Your task to perform on an android device: change your default location settings in chrome Image 0: 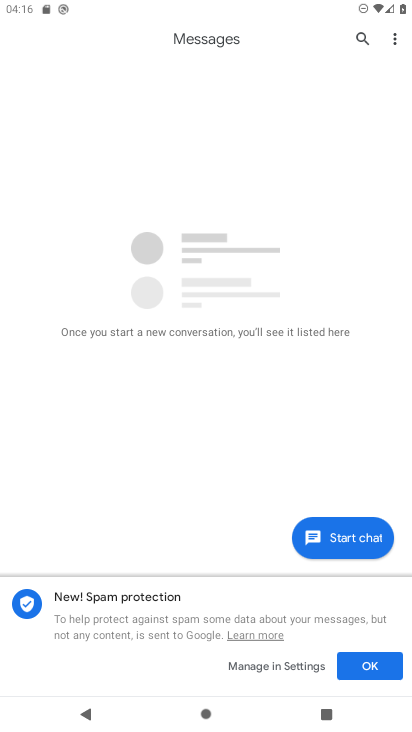
Step 0: press home button
Your task to perform on an android device: change your default location settings in chrome Image 1: 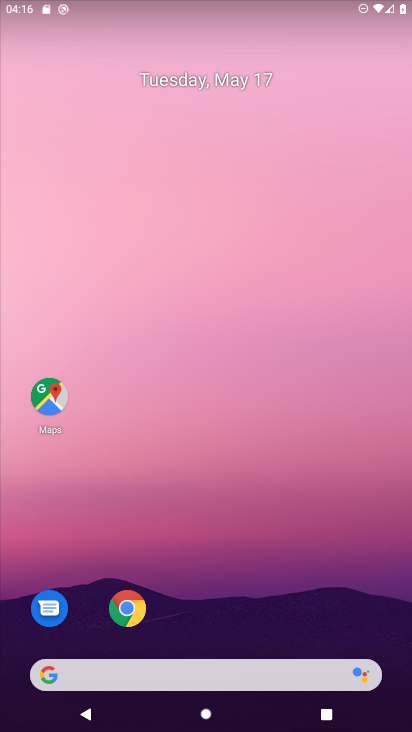
Step 1: click (132, 610)
Your task to perform on an android device: change your default location settings in chrome Image 2: 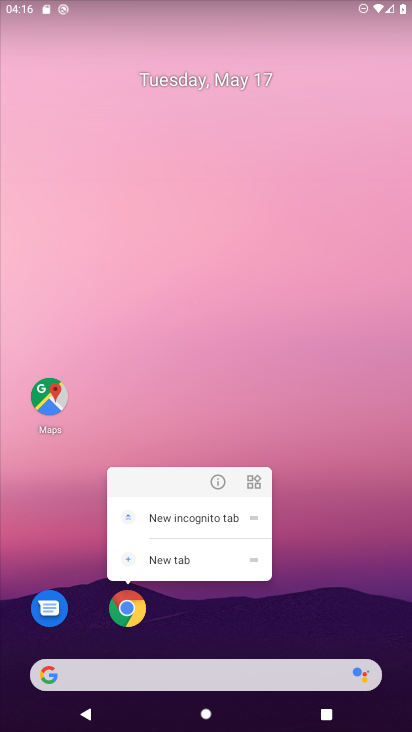
Step 2: click (132, 610)
Your task to perform on an android device: change your default location settings in chrome Image 3: 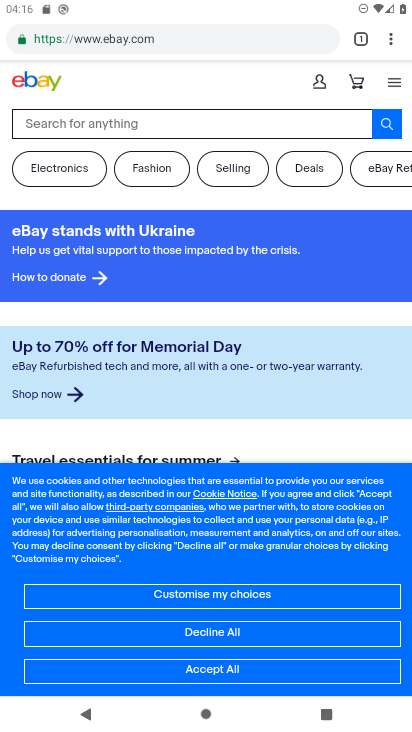
Step 3: click (387, 40)
Your task to perform on an android device: change your default location settings in chrome Image 4: 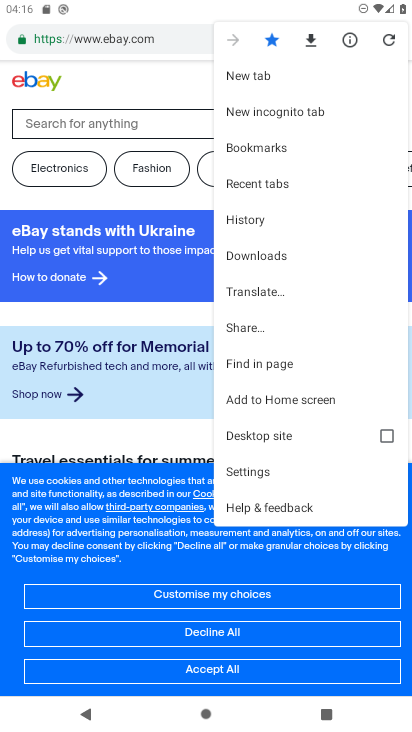
Step 4: click (238, 477)
Your task to perform on an android device: change your default location settings in chrome Image 5: 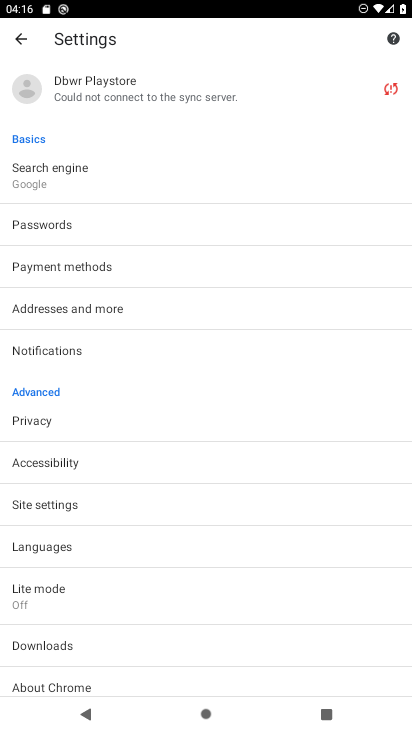
Step 5: click (24, 498)
Your task to perform on an android device: change your default location settings in chrome Image 6: 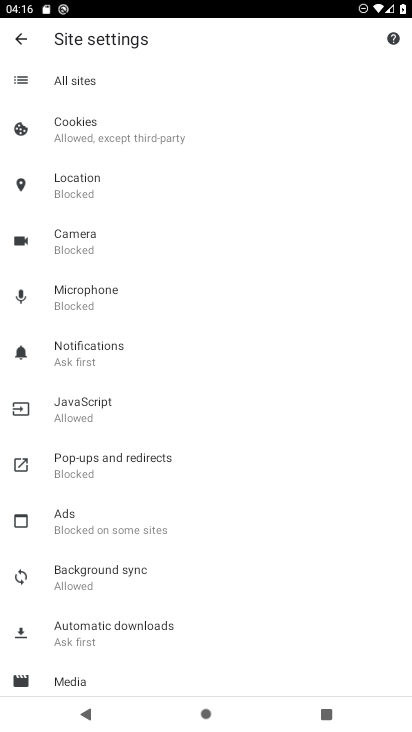
Step 6: click (66, 193)
Your task to perform on an android device: change your default location settings in chrome Image 7: 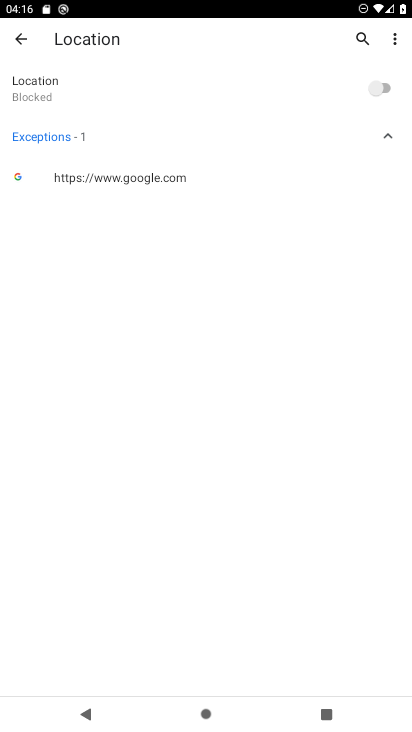
Step 7: click (391, 81)
Your task to perform on an android device: change your default location settings in chrome Image 8: 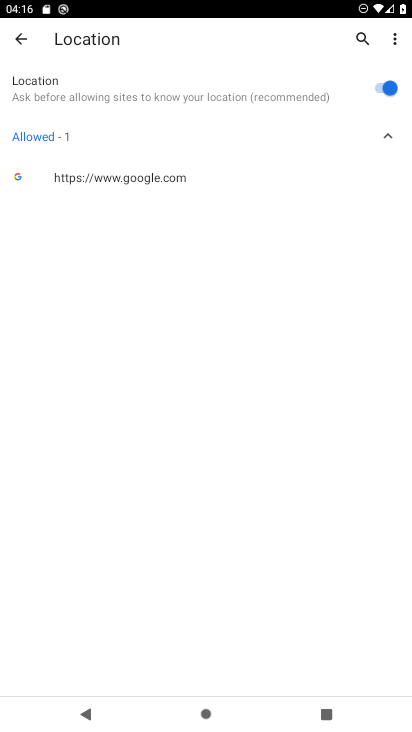
Step 8: task complete